Your task to perform on an android device: show emergency info Image 0: 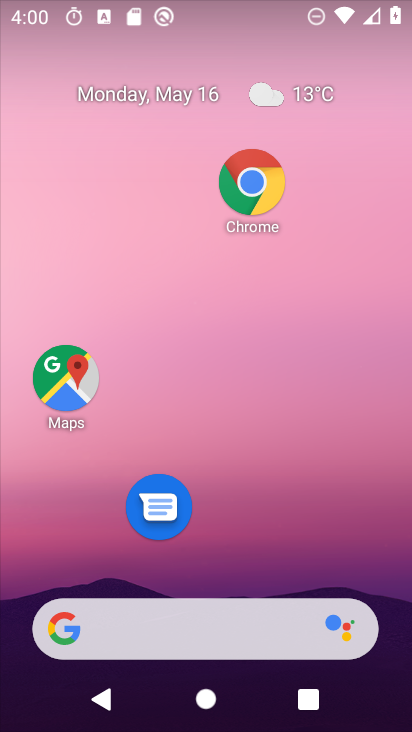
Step 0: drag from (266, 543) to (120, 100)
Your task to perform on an android device: show emergency info Image 1: 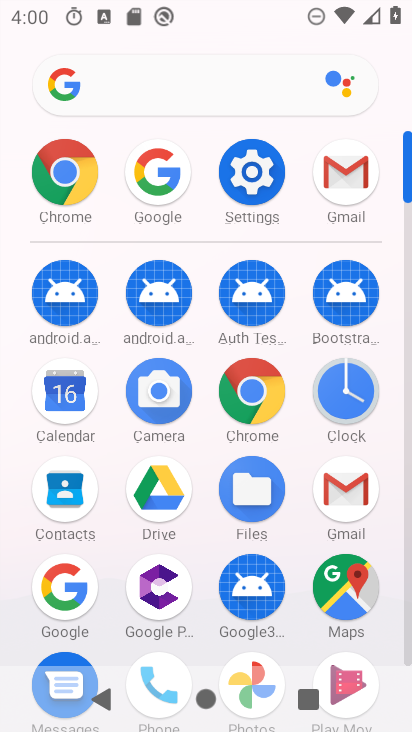
Step 1: click (251, 162)
Your task to perform on an android device: show emergency info Image 2: 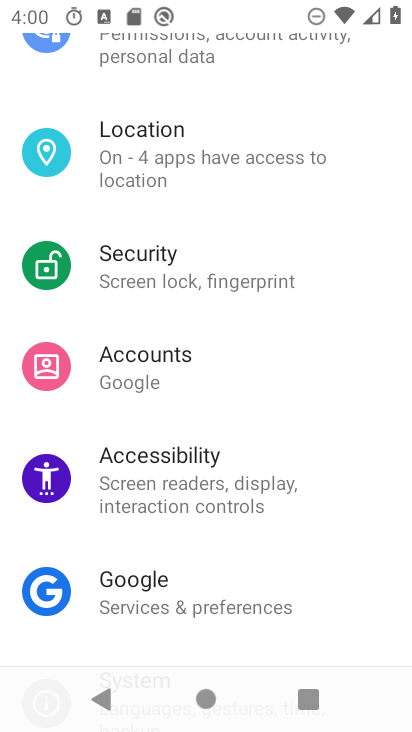
Step 2: drag from (210, 601) to (246, 28)
Your task to perform on an android device: show emergency info Image 3: 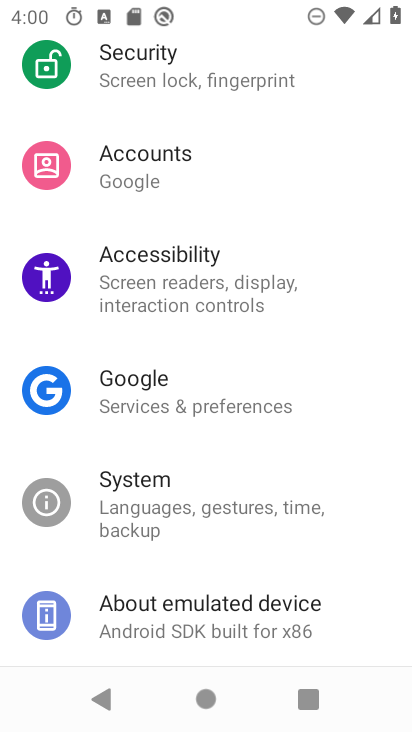
Step 3: click (243, 617)
Your task to perform on an android device: show emergency info Image 4: 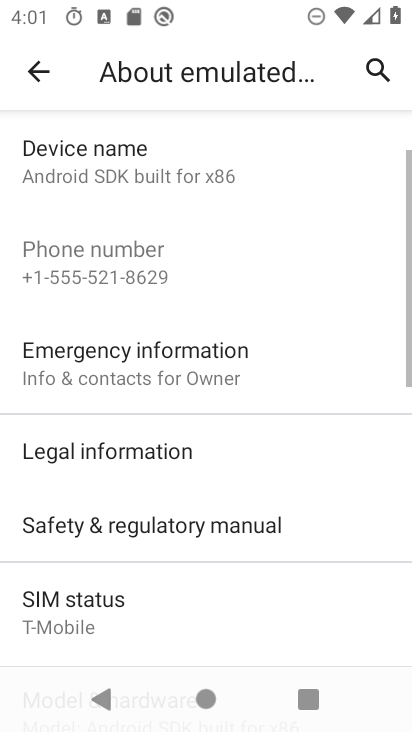
Step 4: click (167, 363)
Your task to perform on an android device: show emergency info Image 5: 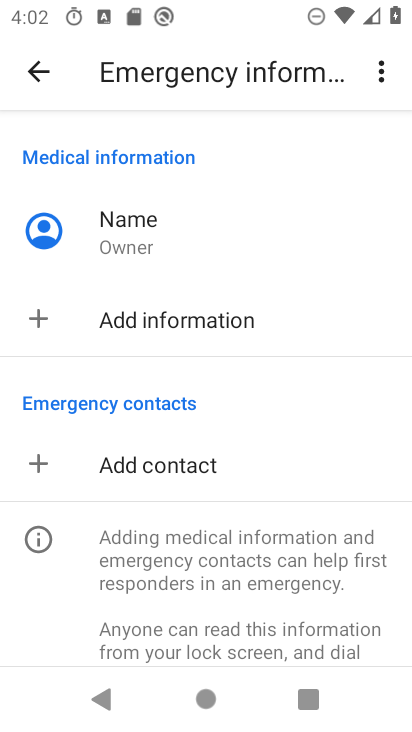
Step 5: task complete